Your task to perform on an android device: turn off notifications in google photos Image 0: 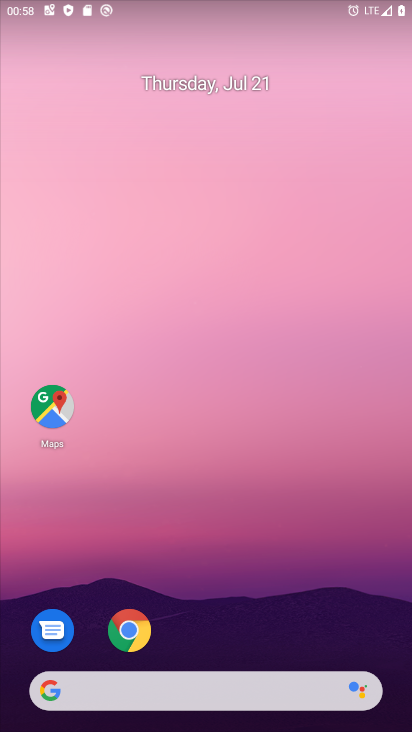
Step 0: drag from (233, 667) to (341, 132)
Your task to perform on an android device: turn off notifications in google photos Image 1: 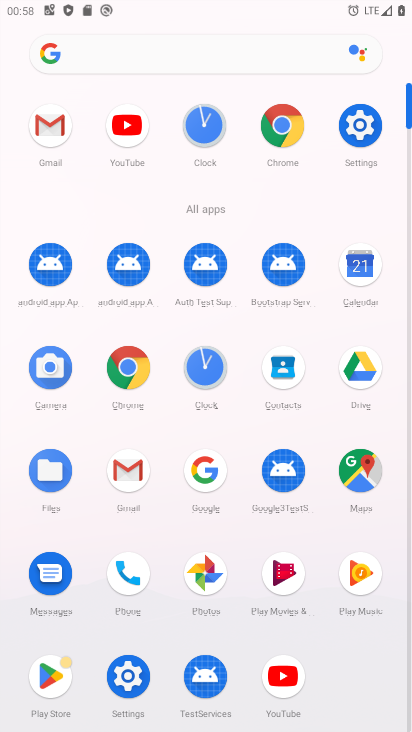
Step 1: click (171, 532)
Your task to perform on an android device: turn off notifications in google photos Image 2: 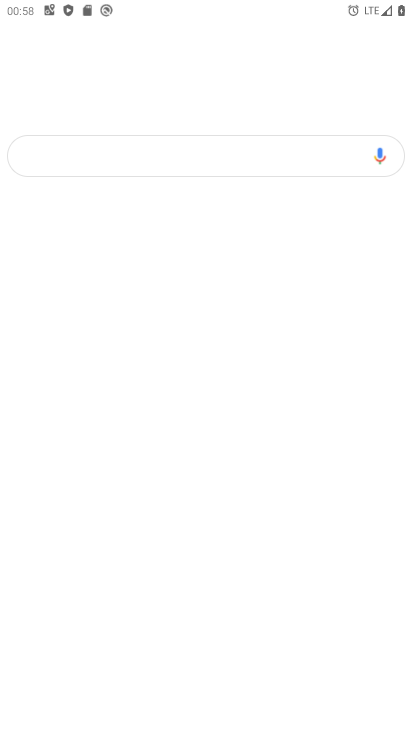
Step 2: click (356, 141)
Your task to perform on an android device: turn off notifications in google photos Image 3: 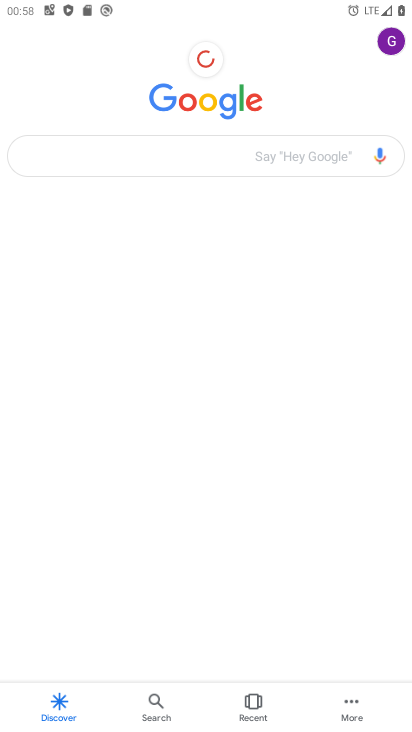
Step 3: press home button
Your task to perform on an android device: turn off notifications in google photos Image 4: 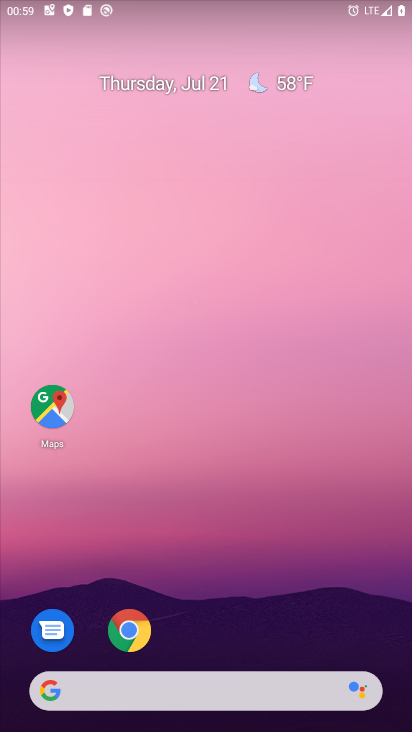
Step 4: drag from (254, 629) to (179, 54)
Your task to perform on an android device: turn off notifications in google photos Image 5: 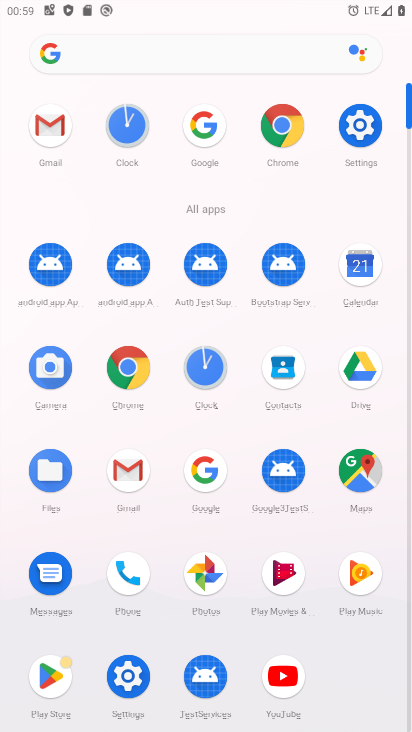
Step 5: click (362, 107)
Your task to perform on an android device: turn off notifications in google photos Image 6: 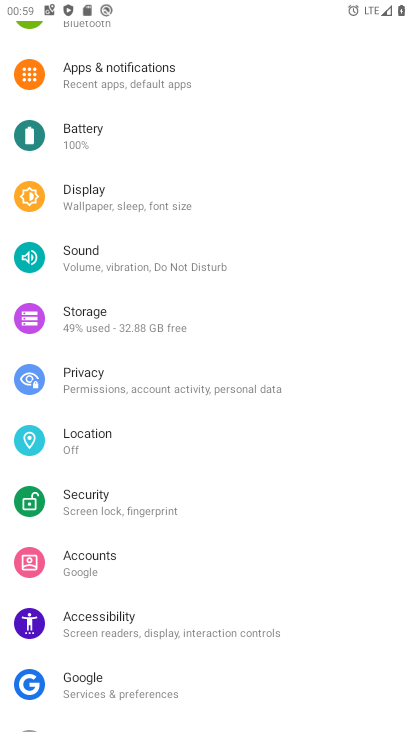
Step 6: click (250, 70)
Your task to perform on an android device: turn off notifications in google photos Image 7: 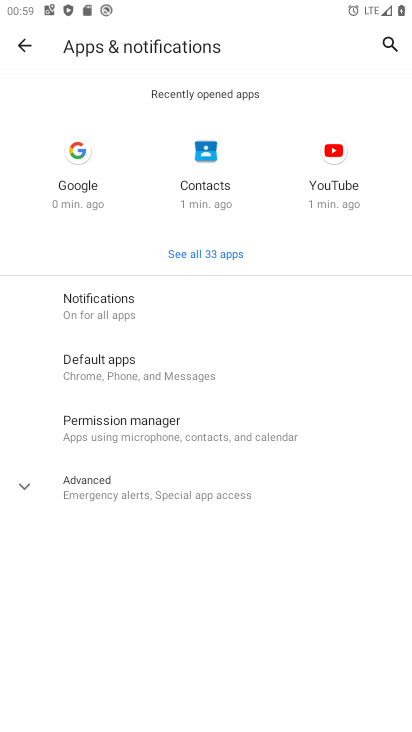
Step 7: click (230, 265)
Your task to perform on an android device: turn off notifications in google photos Image 8: 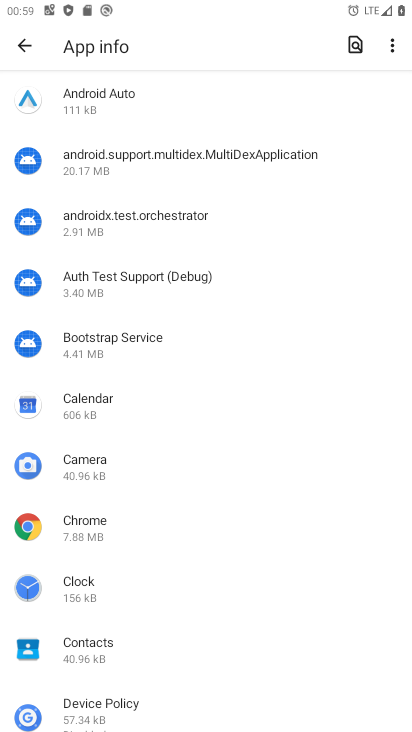
Step 8: drag from (154, 639) to (212, 271)
Your task to perform on an android device: turn off notifications in google photos Image 9: 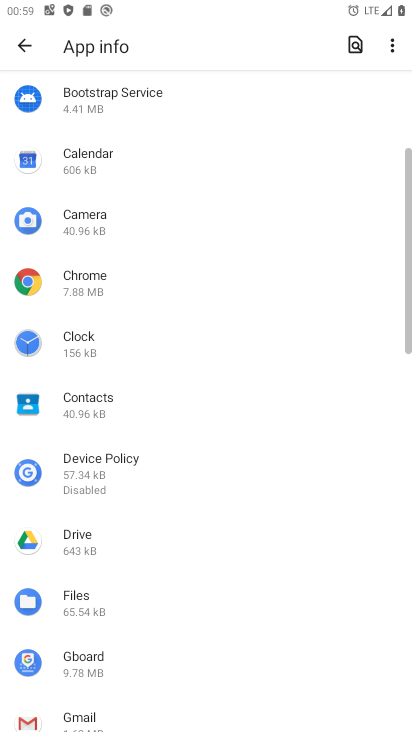
Step 9: drag from (165, 637) to (234, 228)
Your task to perform on an android device: turn off notifications in google photos Image 10: 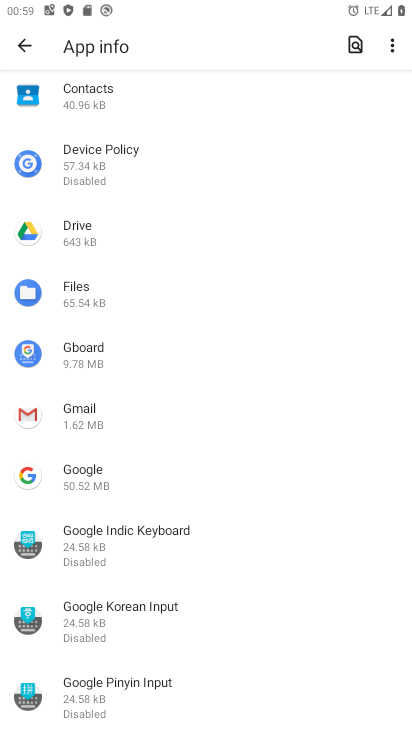
Step 10: drag from (167, 647) to (214, 160)
Your task to perform on an android device: turn off notifications in google photos Image 11: 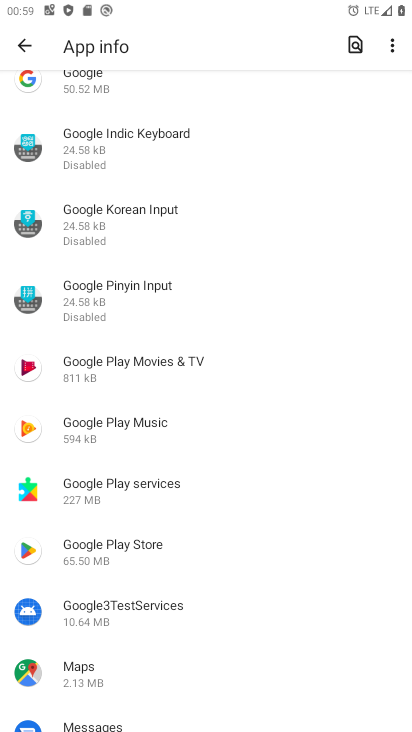
Step 11: drag from (104, 632) to (138, 153)
Your task to perform on an android device: turn off notifications in google photos Image 12: 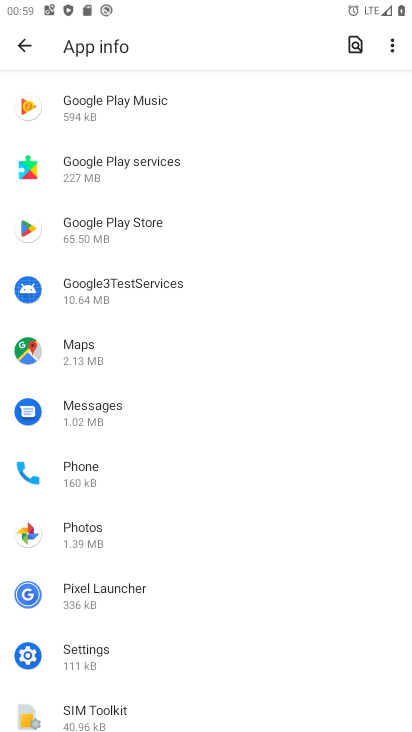
Step 12: click (80, 533)
Your task to perform on an android device: turn off notifications in google photos Image 13: 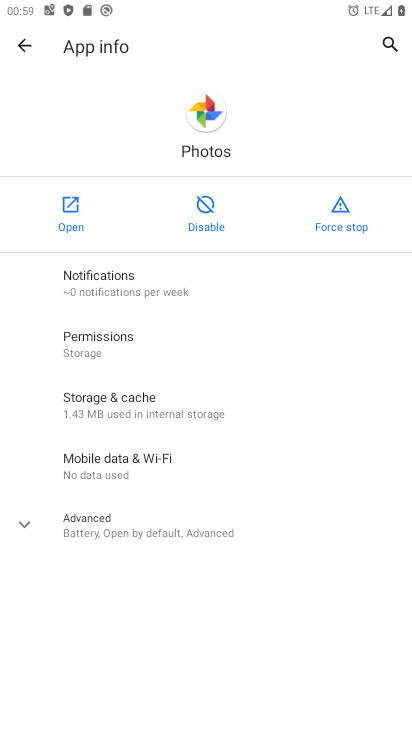
Step 13: click (93, 298)
Your task to perform on an android device: turn off notifications in google photos Image 14: 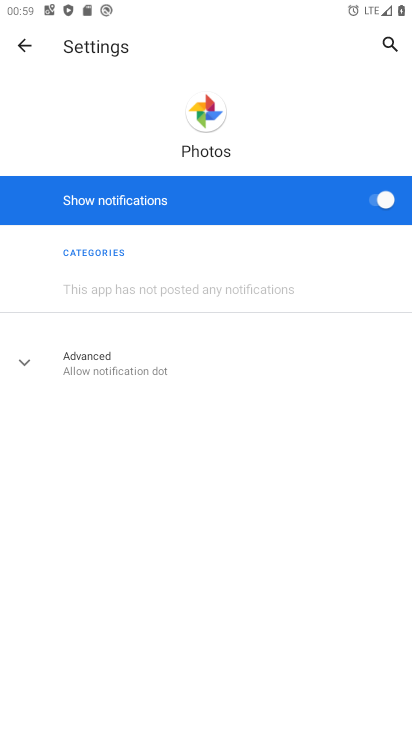
Step 14: click (377, 212)
Your task to perform on an android device: turn off notifications in google photos Image 15: 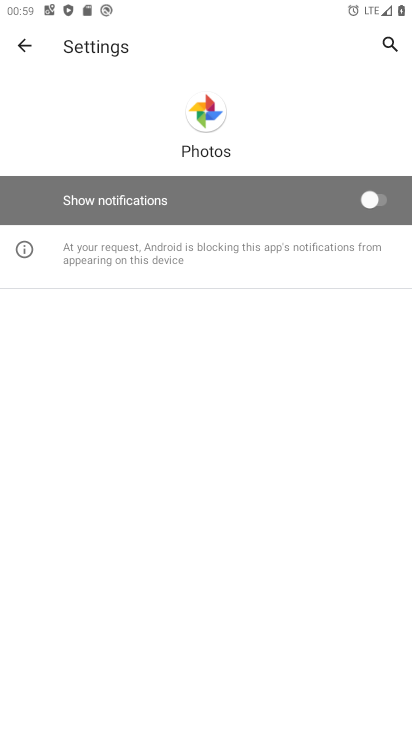
Step 15: task complete